Your task to perform on an android device: turn on data saver in the chrome app Image 0: 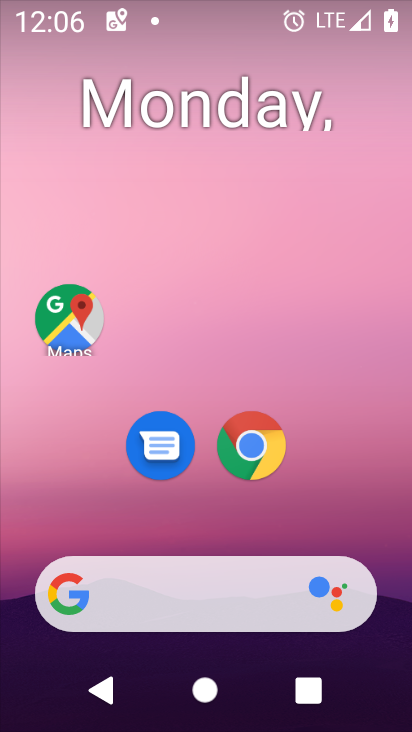
Step 0: drag from (188, 527) to (254, 127)
Your task to perform on an android device: turn on data saver in the chrome app Image 1: 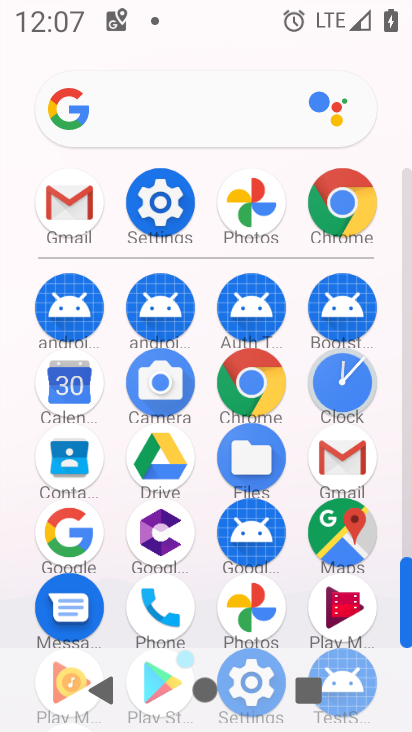
Step 1: click (346, 207)
Your task to perform on an android device: turn on data saver in the chrome app Image 2: 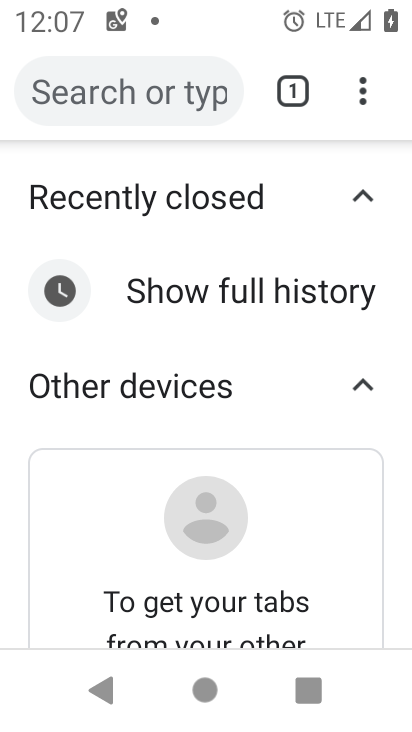
Step 2: drag from (361, 90) to (174, 481)
Your task to perform on an android device: turn on data saver in the chrome app Image 3: 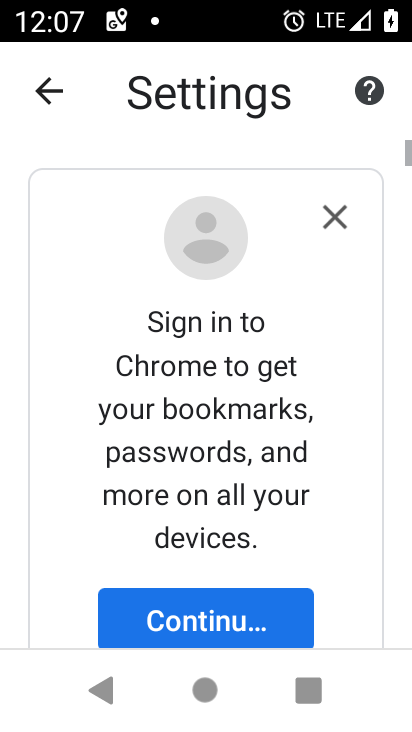
Step 3: drag from (242, 559) to (355, 47)
Your task to perform on an android device: turn on data saver in the chrome app Image 4: 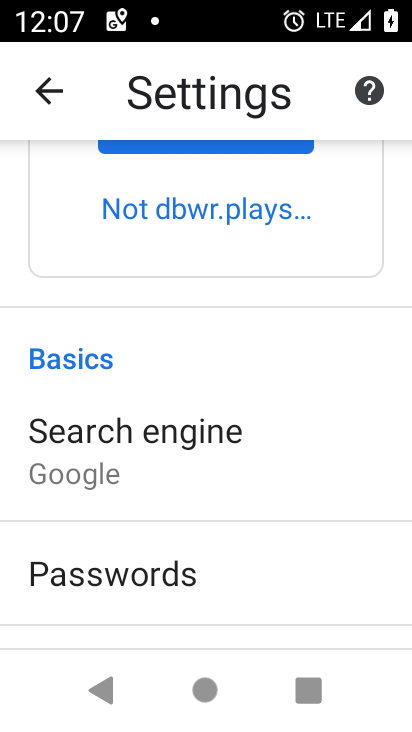
Step 4: drag from (268, 315) to (287, 693)
Your task to perform on an android device: turn on data saver in the chrome app Image 5: 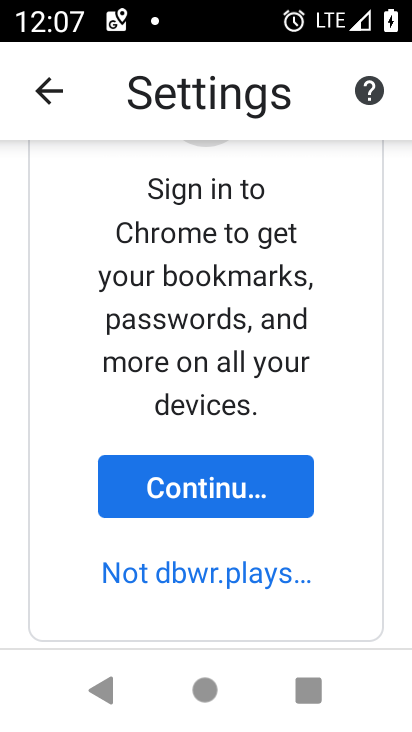
Step 5: drag from (333, 218) to (313, 662)
Your task to perform on an android device: turn on data saver in the chrome app Image 6: 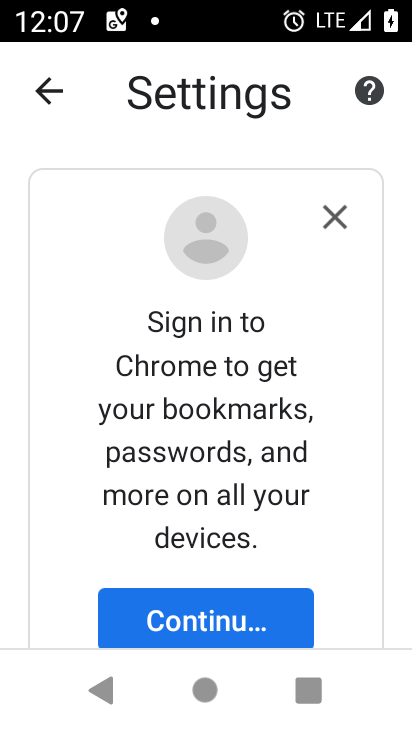
Step 6: click (339, 223)
Your task to perform on an android device: turn on data saver in the chrome app Image 7: 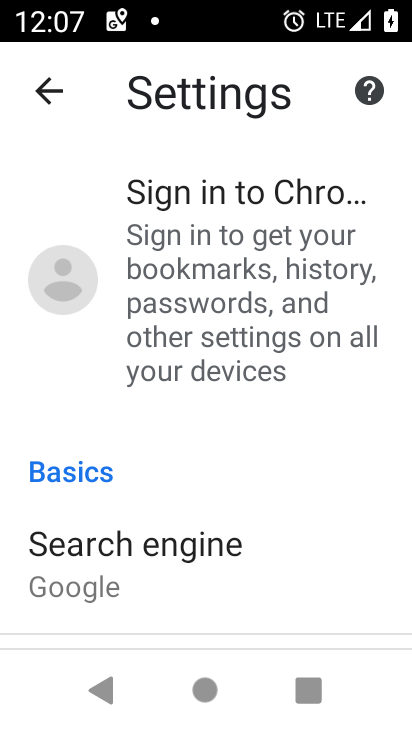
Step 7: drag from (270, 563) to (366, 150)
Your task to perform on an android device: turn on data saver in the chrome app Image 8: 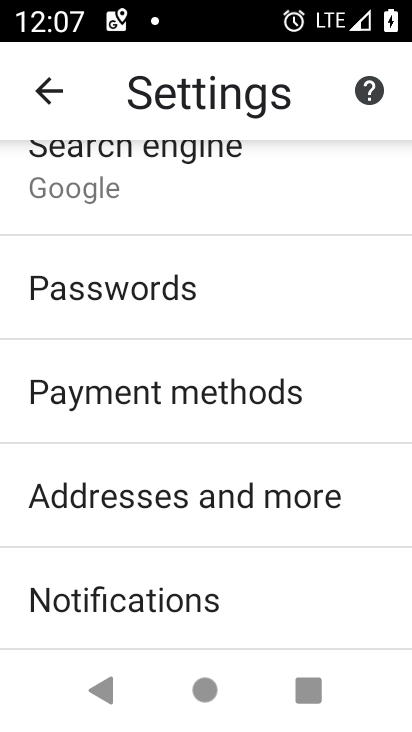
Step 8: drag from (238, 485) to (395, 91)
Your task to perform on an android device: turn on data saver in the chrome app Image 9: 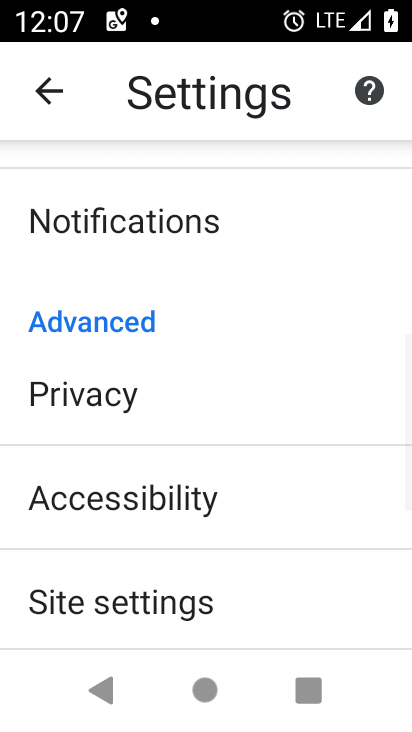
Step 9: drag from (216, 536) to (345, 148)
Your task to perform on an android device: turn on data saver in the chrome app Image 10: 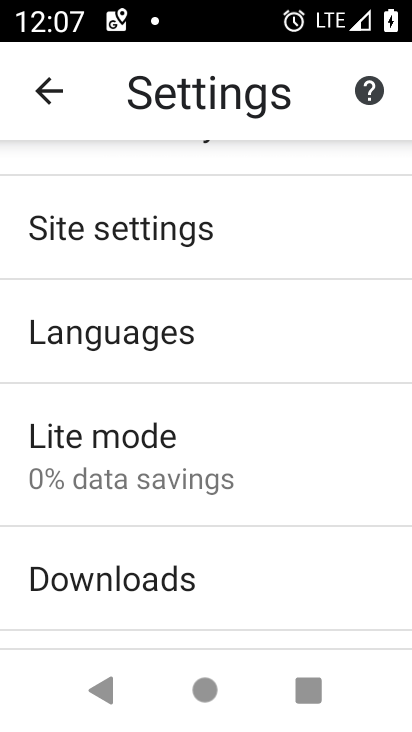
Step 10: click (177, 450)
Your task to perform on an android device: turn on data saver in the chrome app Image 11: 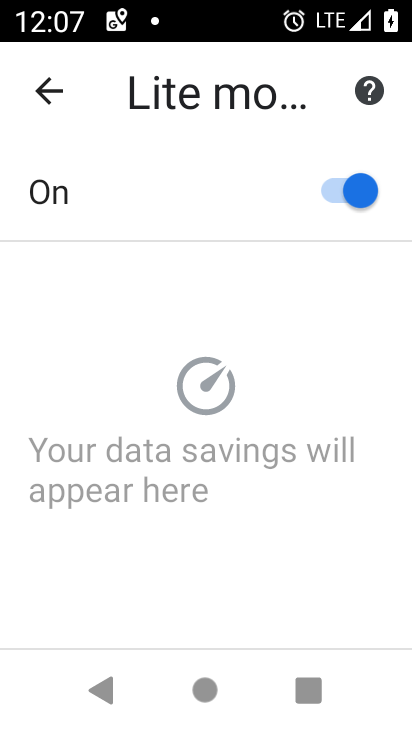
Step 11: task complete